Your task to perform on an android device: set default search engine in the chrome app Image 0: 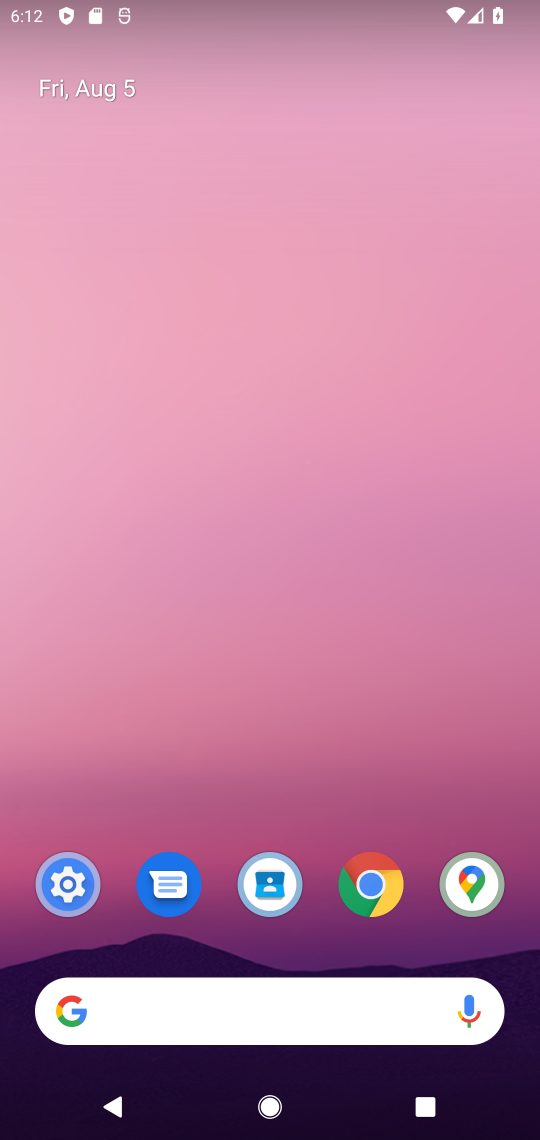
Step 0: press home button
Your task to perform on an android device: set default search engine in the chrome app Image 1: 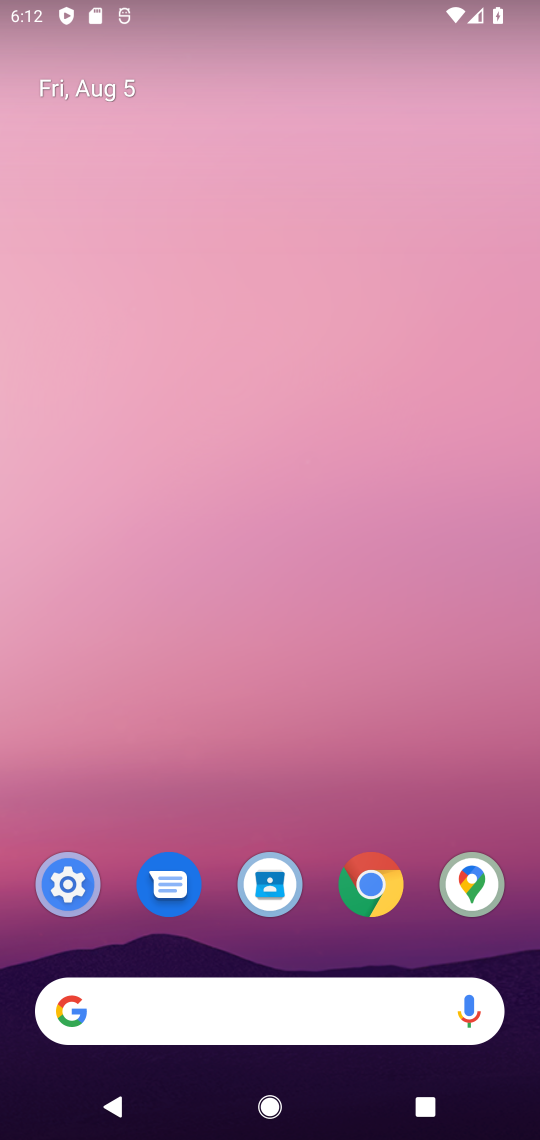
Step 1: click (369, 889)
Your task to perform on an android device: set default search engine in the chrome app Image 2: 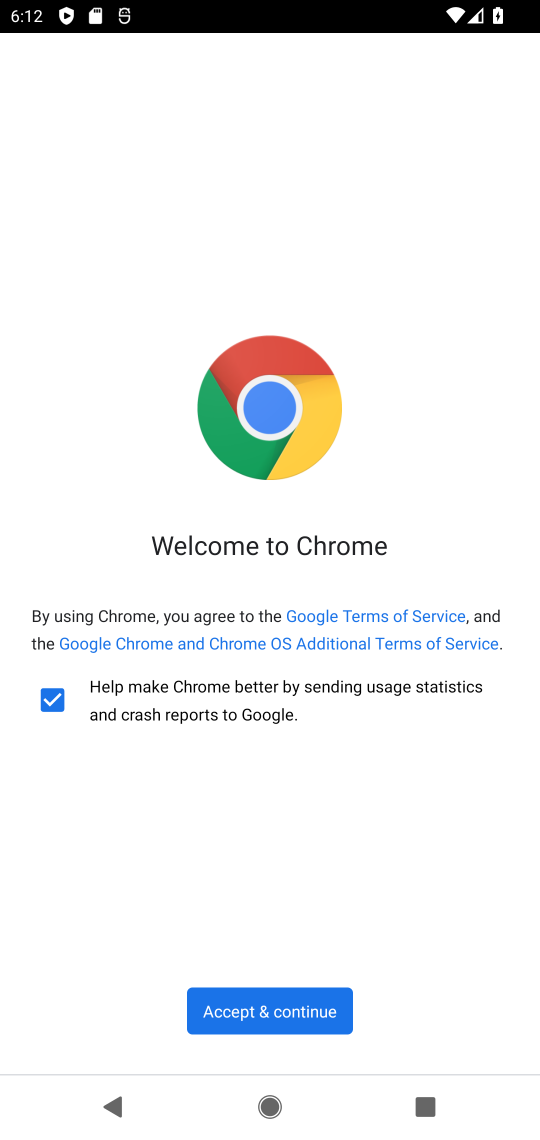
Step 2: click (264, 1002)
Your task to perform on an android device: set default search engine in the chrome app Image 3: 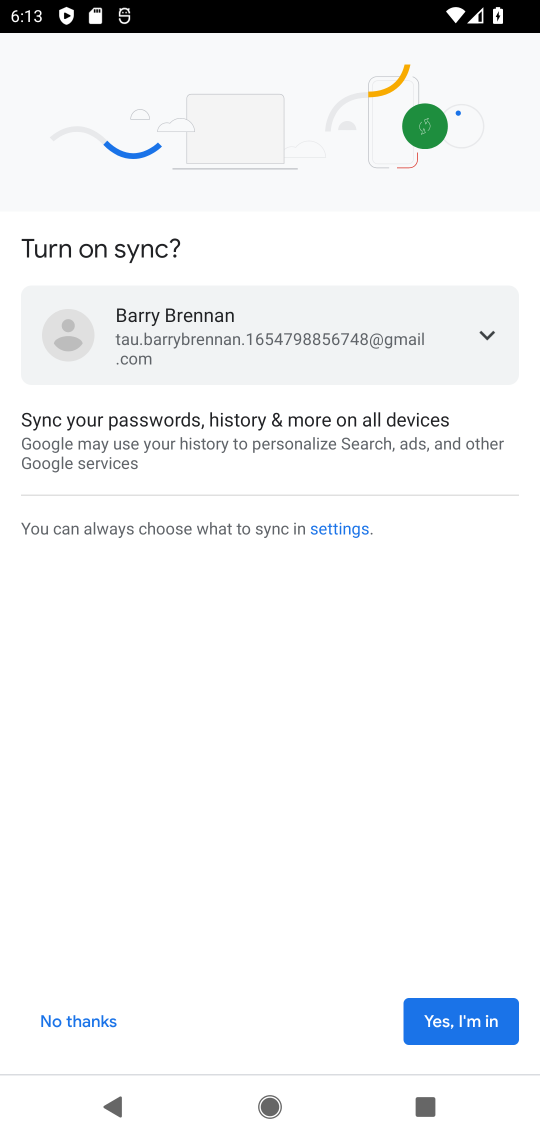
Step 3: click (476, 1016)
Your task to perform on an android device: set default search engine in the chrome app Image 4: 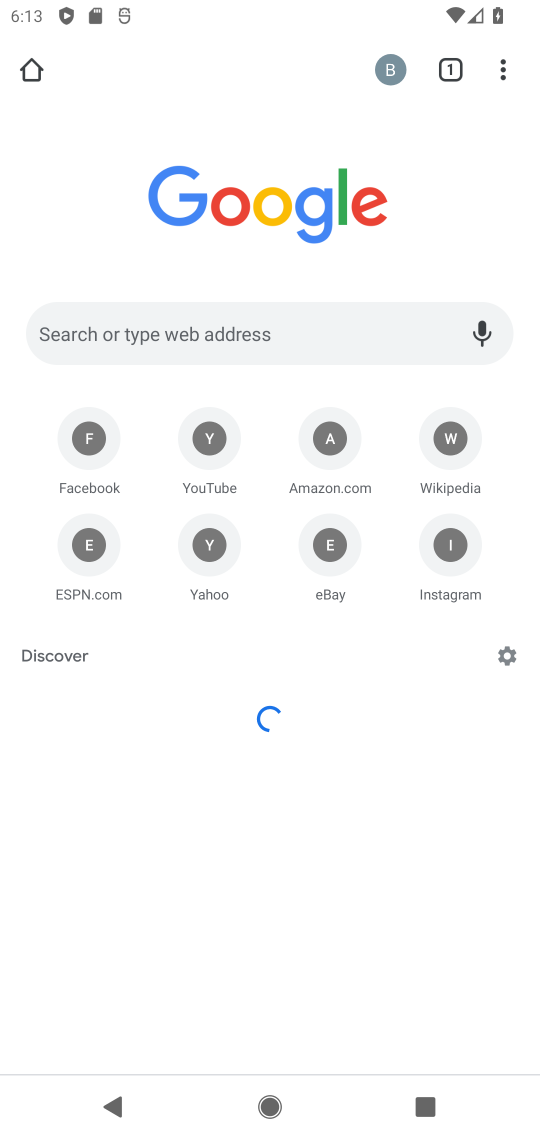
Step 4: click (500, 63)
Your task to perform on an android device: set default search engine in the chrome app Image 5: 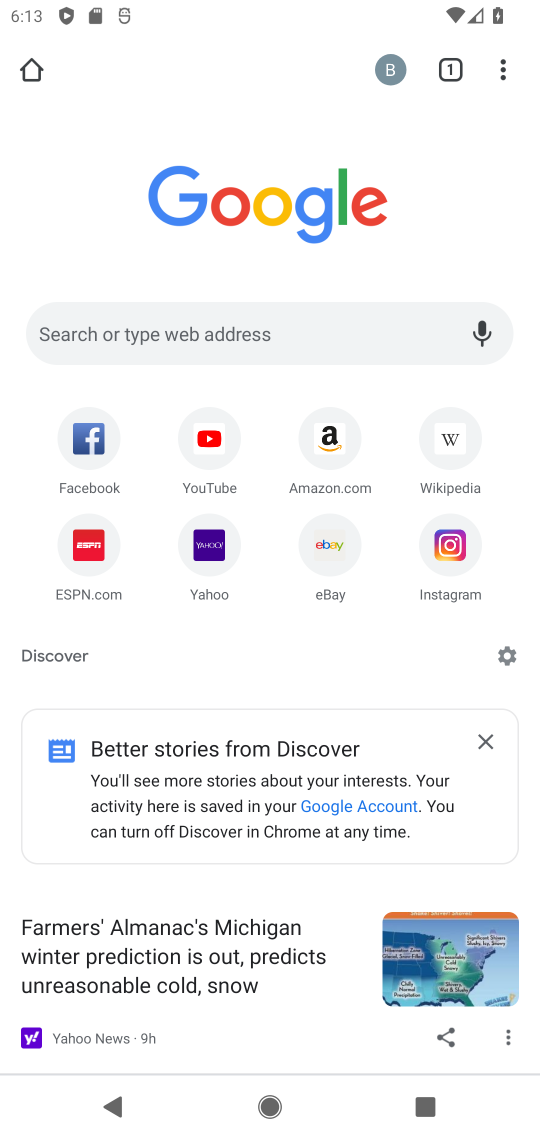
Step 5: click (505, 63)
Your task to perform on an android device: set default search engine in the chrome app Image 6: 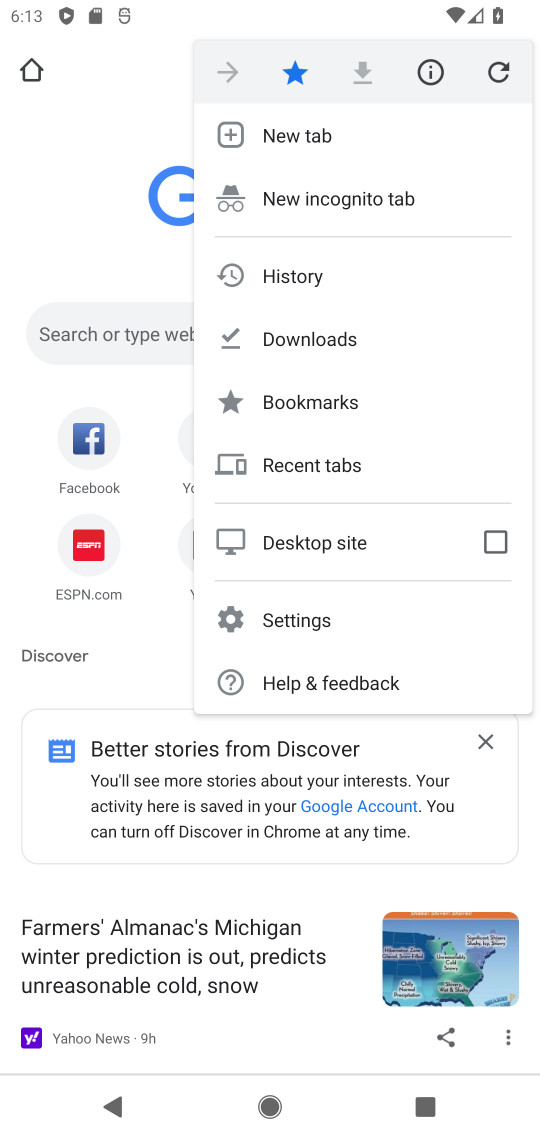
Step 6: click (322, 603)
Your task to perform on an android device: set default search engine in the chrome app Image 7: 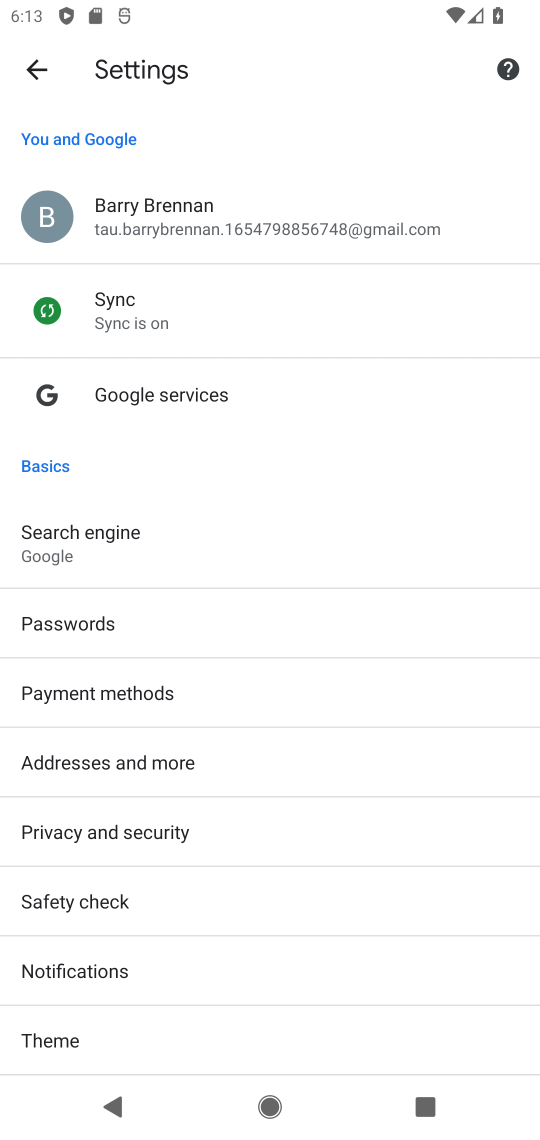
Step 7: click (142, 545)
Your task to perform on an android device: set default search engine in the chrome app Image 8: 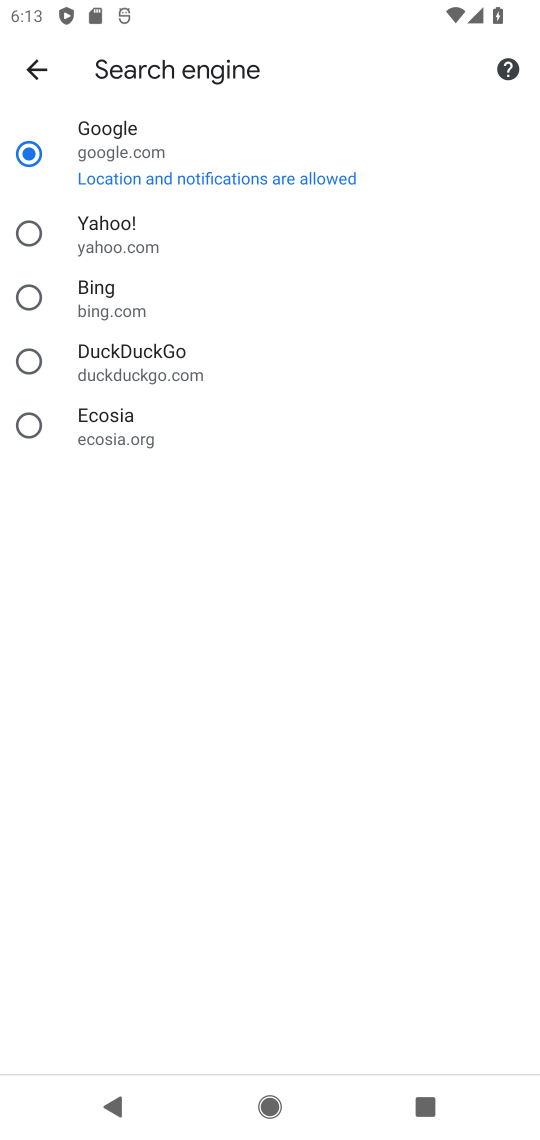
Step 8: click (29, 355)
Your task to perform on an android device: set default search engine in the chrome app Image 9: 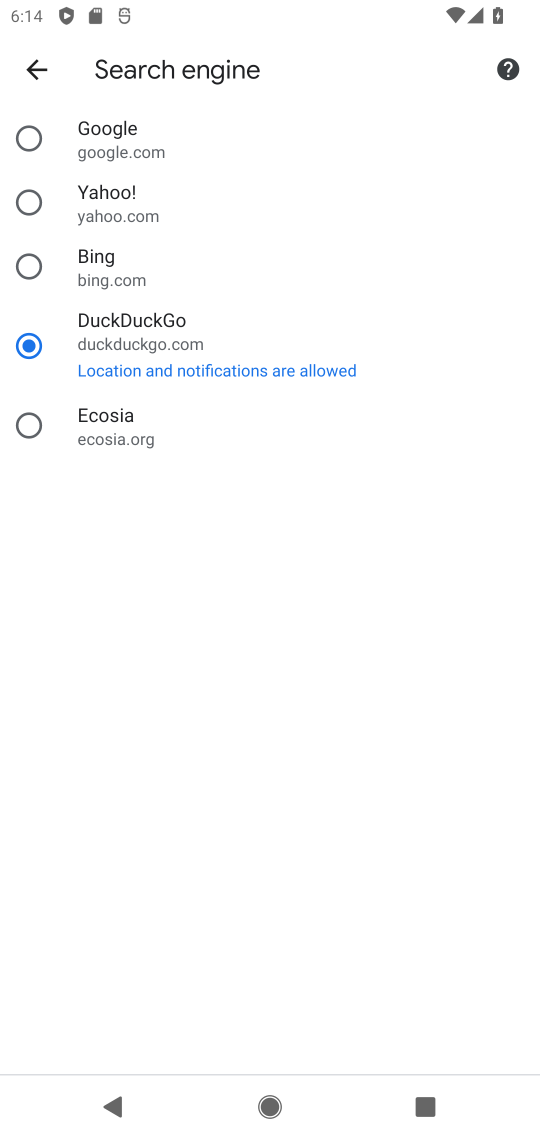
Step 9: task complete